Your task to perform on an android device: check battery use Image 0: 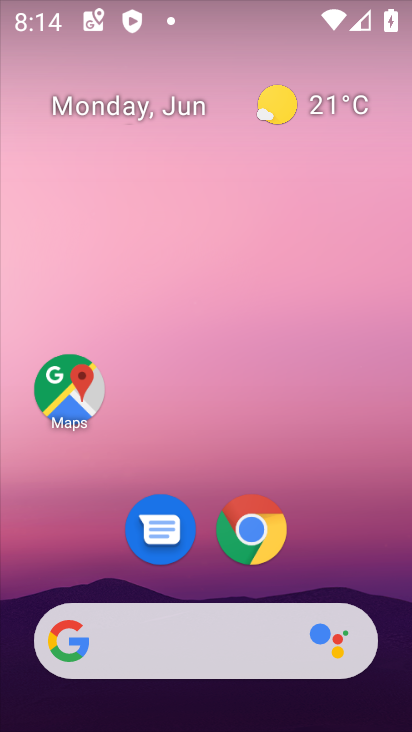
Step 0: drag from (26, 518) to (216, 152)
Your task to perform on an android device: check battery use Image 1: 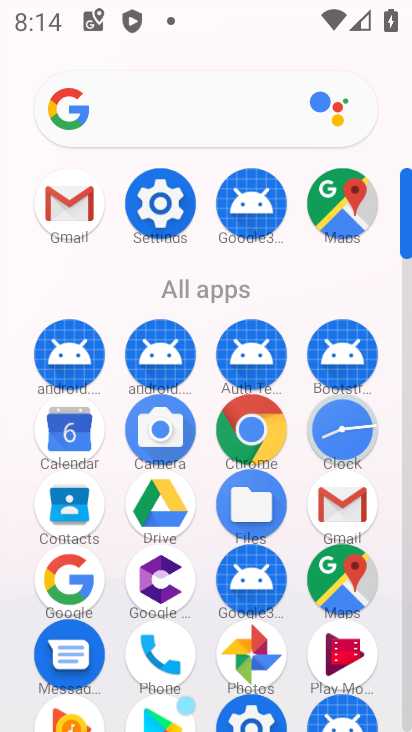
Step 1: click (172, 204)
Your task to perform on an android device: check battery use Image 2: 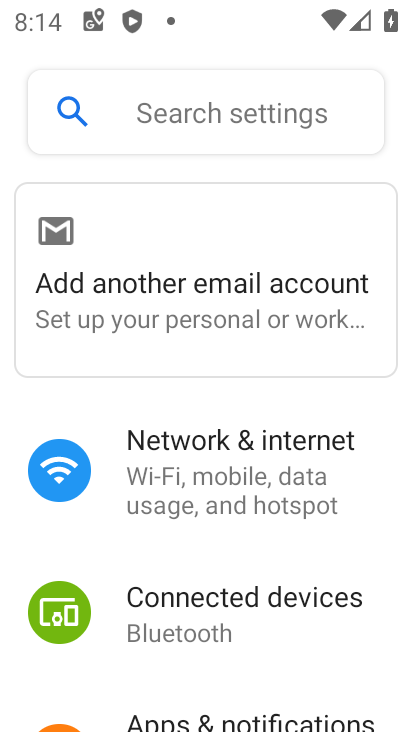
Step 2: drag from (2, 667) to (163, 163)
Your task to perform on an android device: check battery use Image 3: 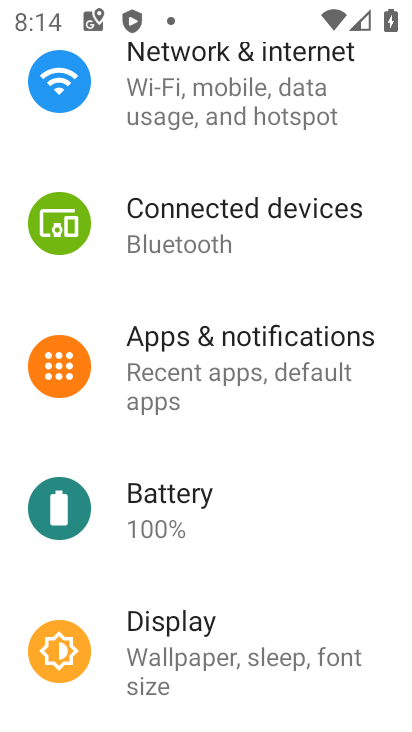
Step 3: click (139, 486)
Your task to perform on an android device: check battery use Image 4: 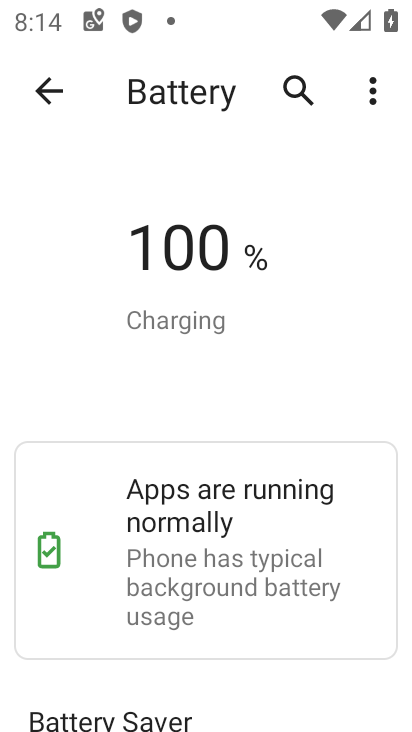
Step 4: task complete